Your task to perform on an android device: Open settings on Google Maps Image 0: 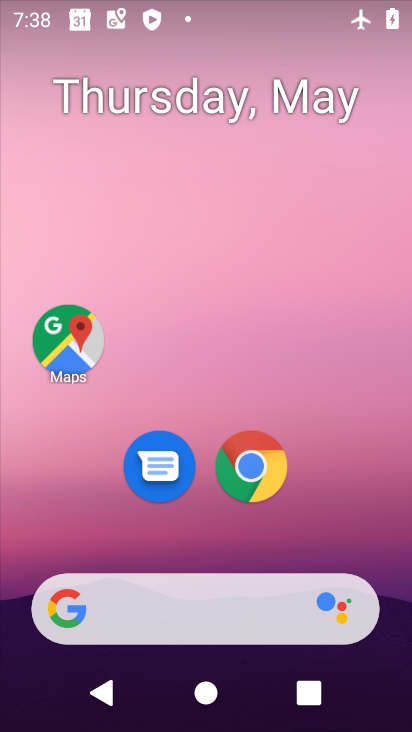
Step 0: click (64, 343)
Your task to perform on an android device: Open settings on Google Maps Image 1: 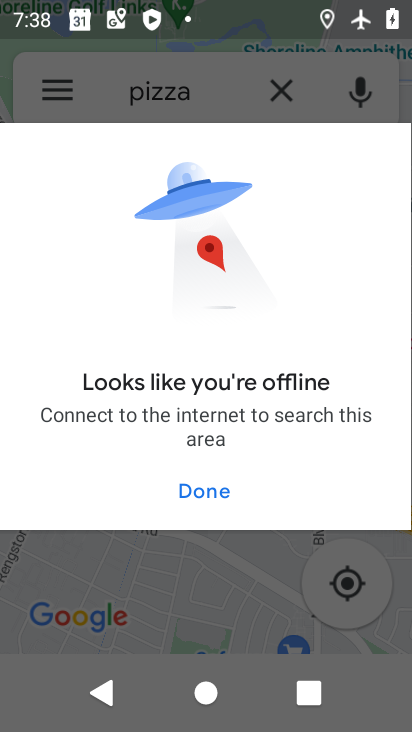
Step 1: click (194, 495)
Your task to perform on an android device: Open settings on Google Maps Image 2: 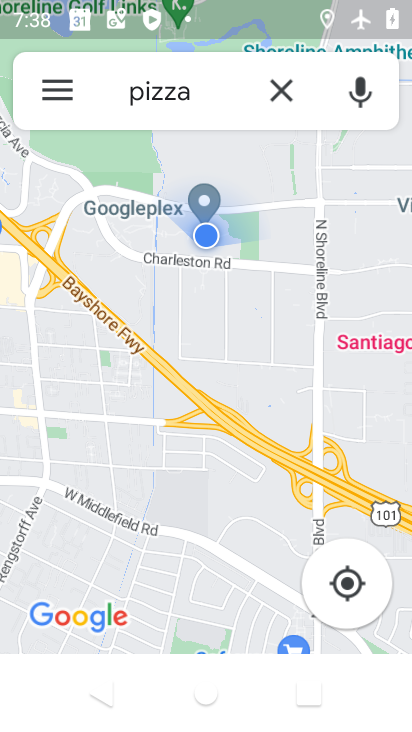
Step 2: click (47, 97)
Your task to perform on an android device: Open settings on Google Maps Image 3: 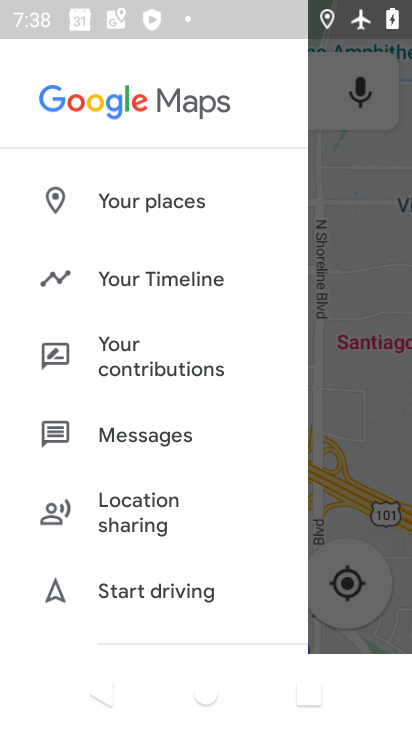
Step 3: drag from (169, 566) to (162, 242)
Your task to perform on an android device: Open settings on Google Maps Image 4: 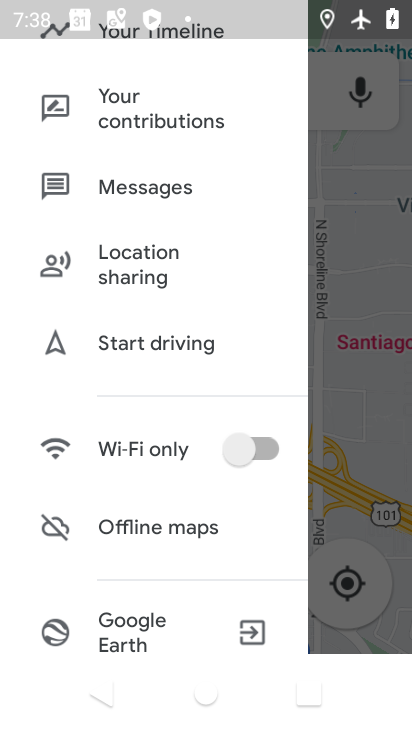
Step 4: drag from (172, 561) to (160, 271)
Your task to perform on an android device: Open settings on Google Maps Image 5: 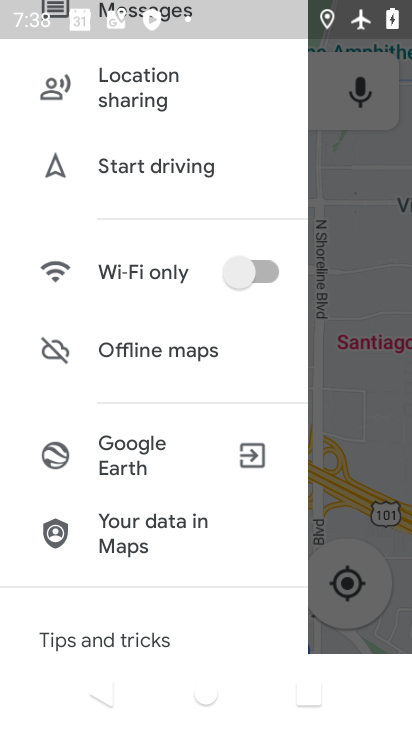
Step 5: drag from (179, 578) to (166, 340)
Your task to perform on an android device: Open settings on Google Maps Image 6: 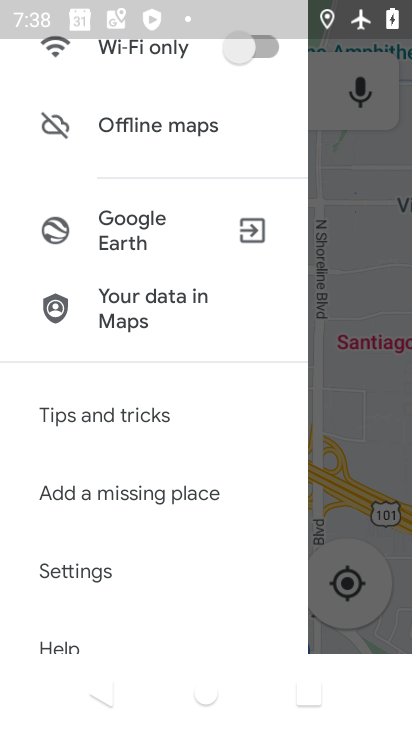
Step 6: click (107, 571)
Your task to perform on an android device: Open settings on Google Maps Image 7: 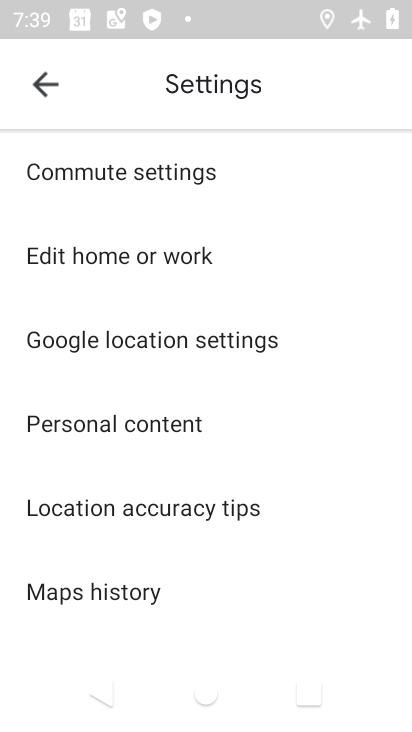
Step 7: task complete